Your task to perform on an android device: Open the phone app and click the voicemail tab. Image 0: 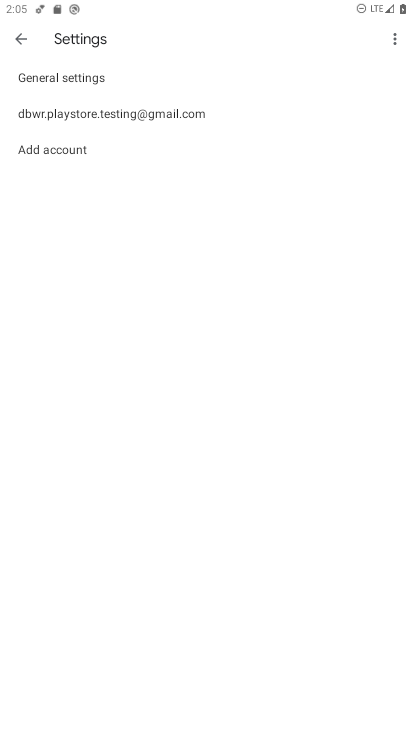
Step 0: press home button
Your task to perform on an android device: Open the phone app and click the voicemail tab. Image 1: 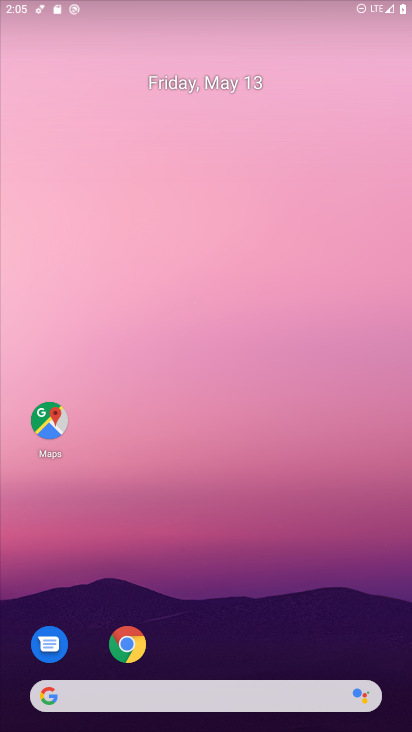
Step 1: drag from (364, 657) to (254, 133)
Your task to perform on an android device: Open the phone app and click the voicemail tab. Image 2: 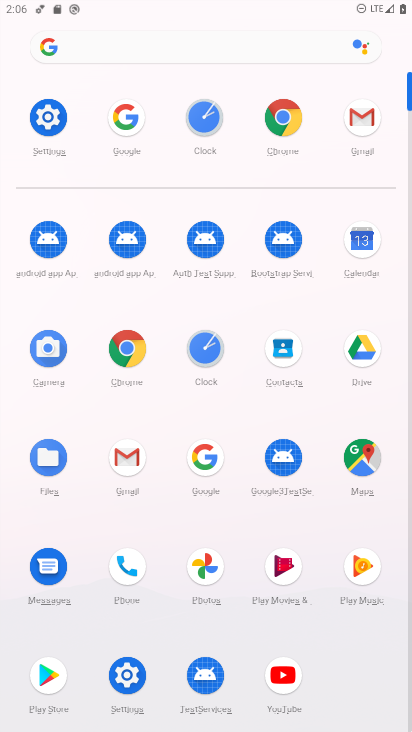
Step 2: click (116, 570)
Your task to perform on an android device: Open the phone app and click the voicemail tab. Image 3: 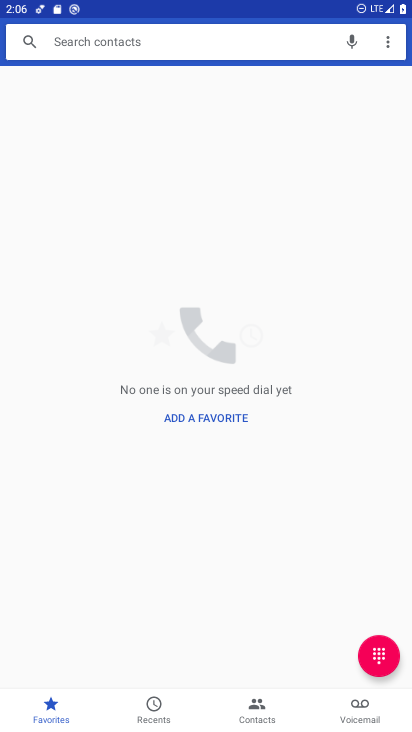
Step 3: click (355, 722)
Your task to perform on an android device: Open the phone app and click the voicemail tab. Image 4: 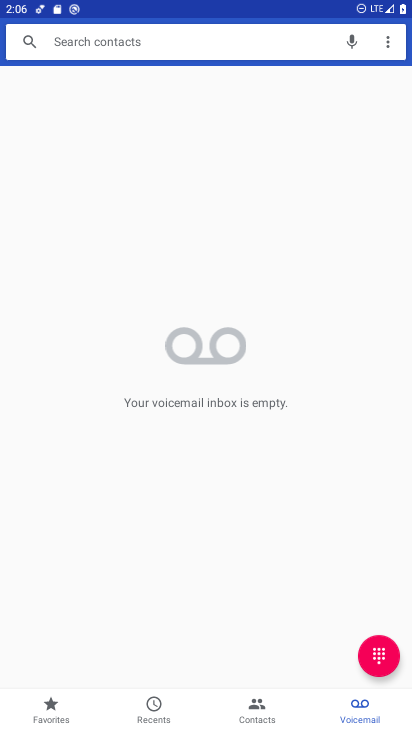
Step 4: task complete